Your task to perform on an android device: turn on bluetooth scan Image 0: 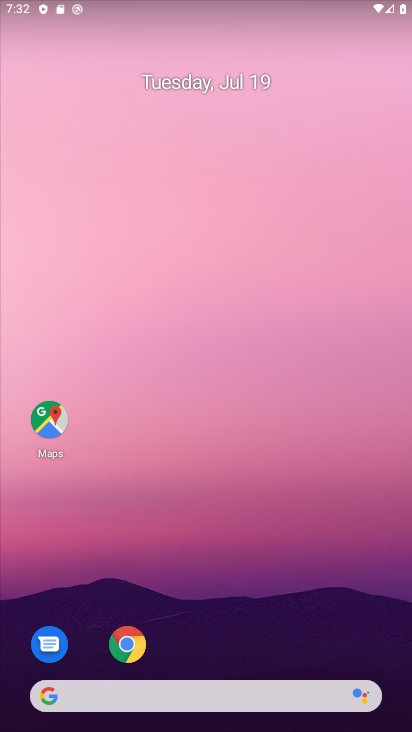
Step 0: drag from (283, 711) to (215, 134)
Your task to perform on an android device: turn on bluetooth scan Image 1: 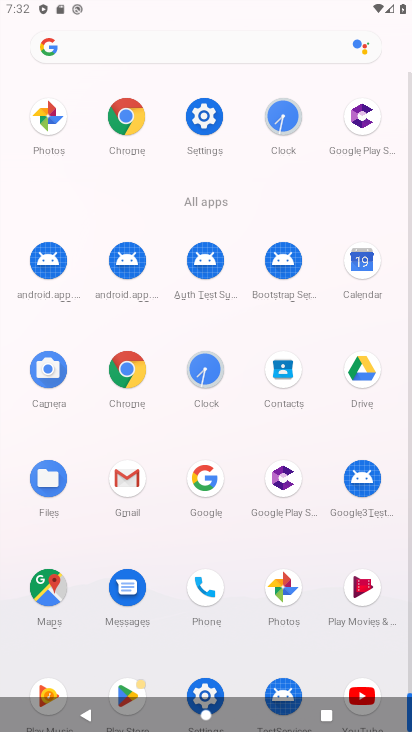
Step 1: click (194, 103)
Your task to perform on an android device: turn on bluetooth scan Image 2: 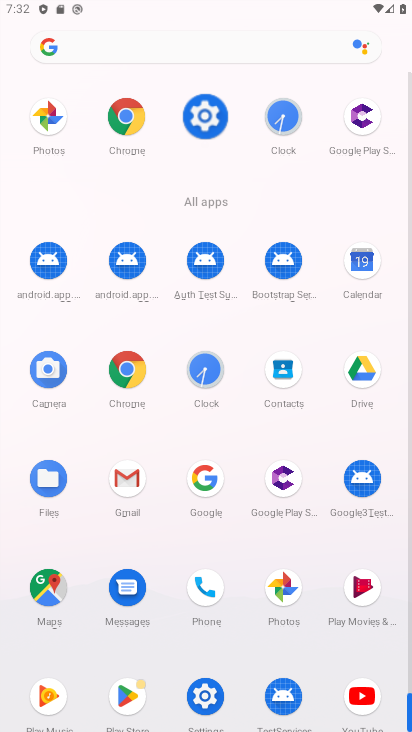
Step 2: click (196, 104)
Your task to perform on an android device: turn on bluetooth scan Image 3: 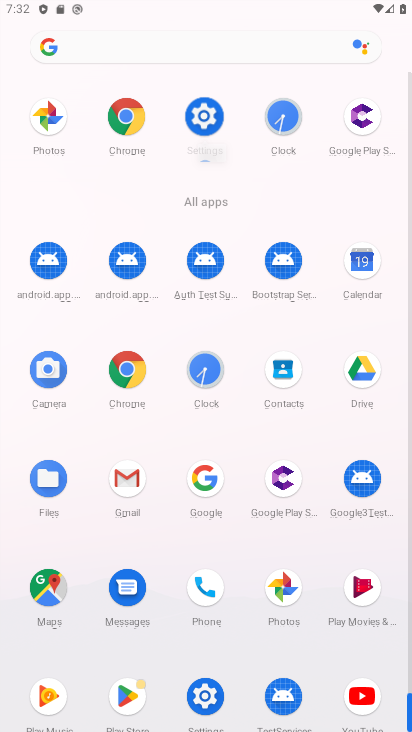
Step 3: click (196, 104)
Your task to perform on an android device: turn on bluetooth scan Image 4: 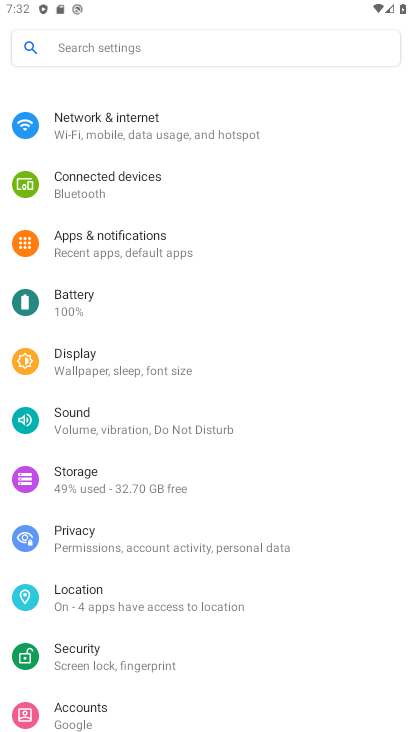
Step 4: click (196, 103)
Your task to perform on an android device: turn on bluetooth scan Image 5: 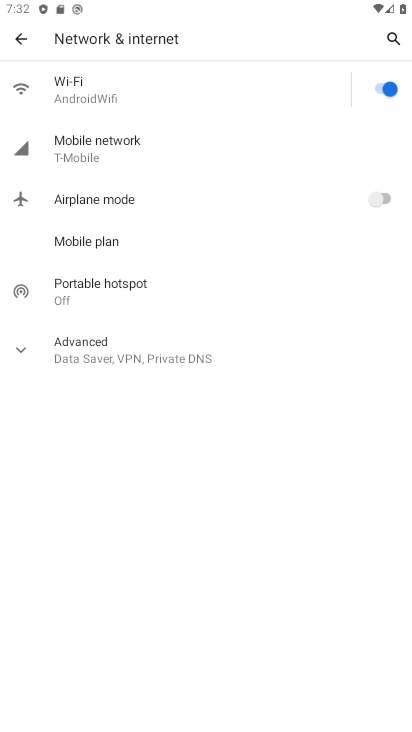
Step 5: click (23, 36)
Your task to perform on an android device: turn on bluetooth scan Image 6: 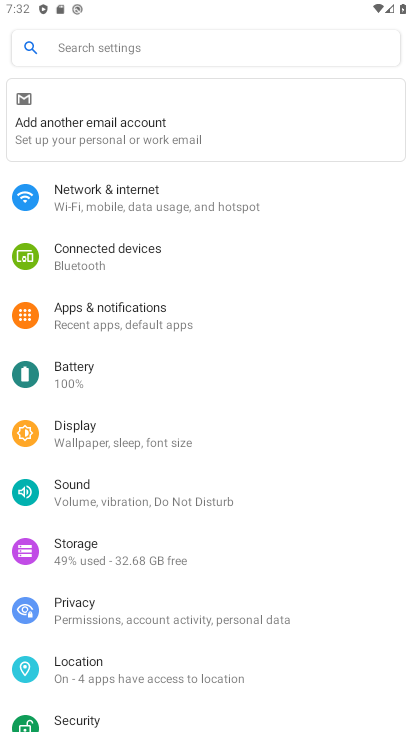
Step 6: click (83, 659)
Your task to perform on an android device: turn on bluetooth scan Image 7: 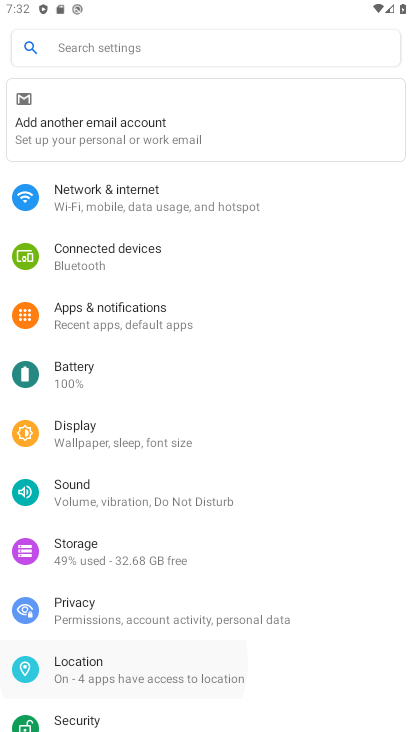
Step 7: click (83, 659)
Your task to perform on an android device: turn on bluetooth scan Image 8: 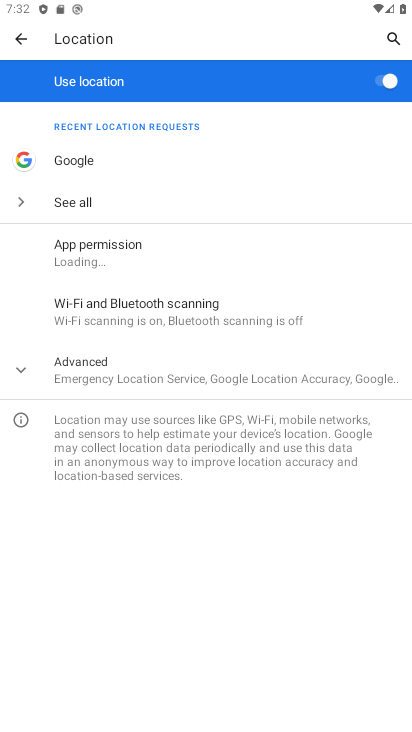
Step 8: click (126, 316)
Your task to perform on an android device: turn on bluetooth scan Image 9: 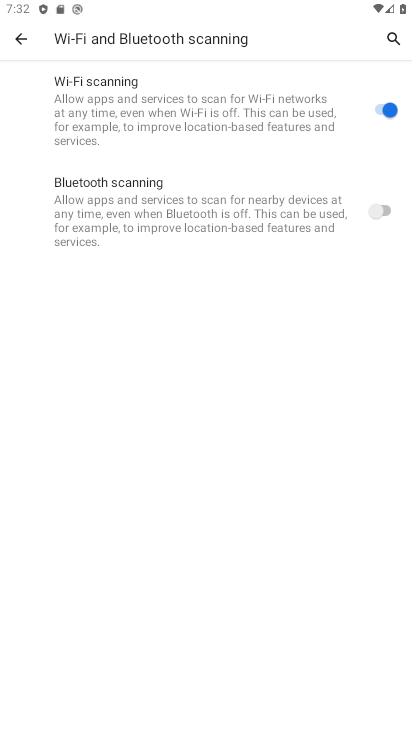
Step 9: click (379, 201)
Your task to perform on an android device: turn on bluetooth scan Image 10: 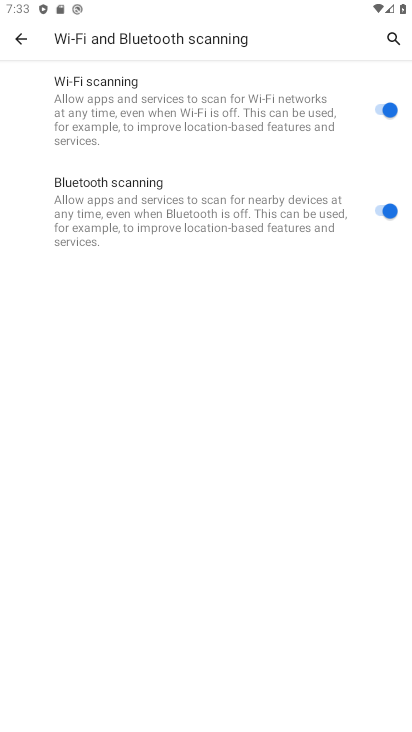
Step 10: task complete